Your task to perform on an android device: Go to eBay Image 0: 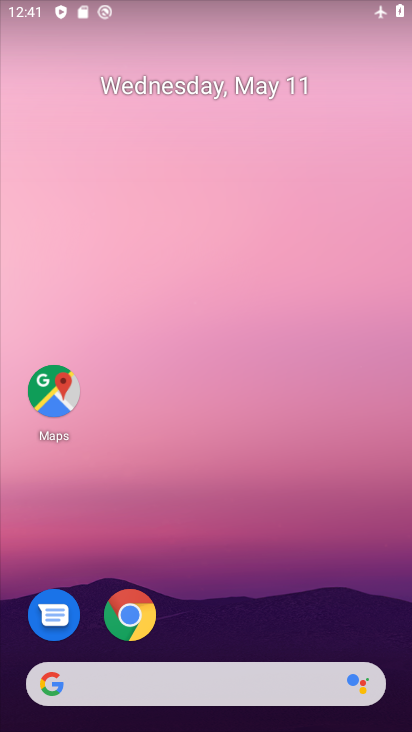
Step 0: drag from (367, 605) to (360, 152)
Your task to perform on an android device: Go to eBay Image 1: 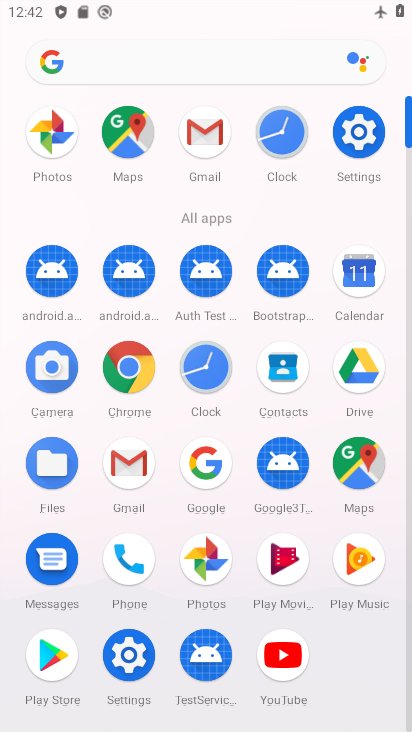
Step 1: click (141, 369)
Your task to perform on an android device: Go to eBay Image 2: 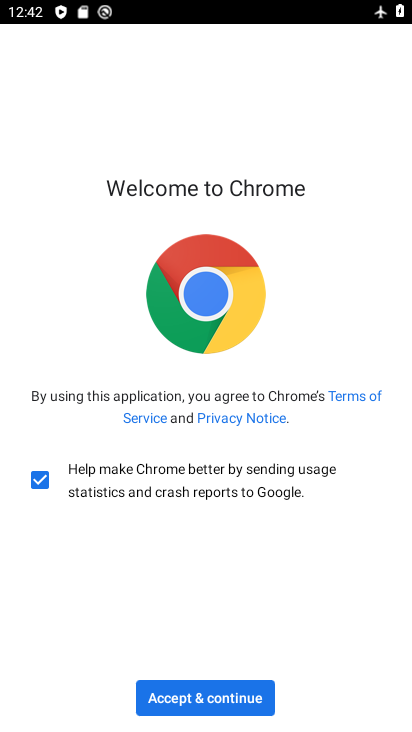
Step 2: click (240, 693)
Your task to perform on an android device: Go to eBay Image 3: 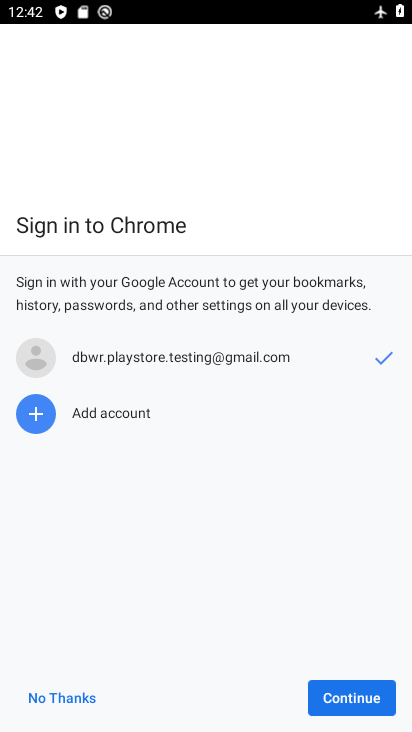
Step 3: click (350, 710)
Your task to perform on an android device: Go to eBay Image 4: 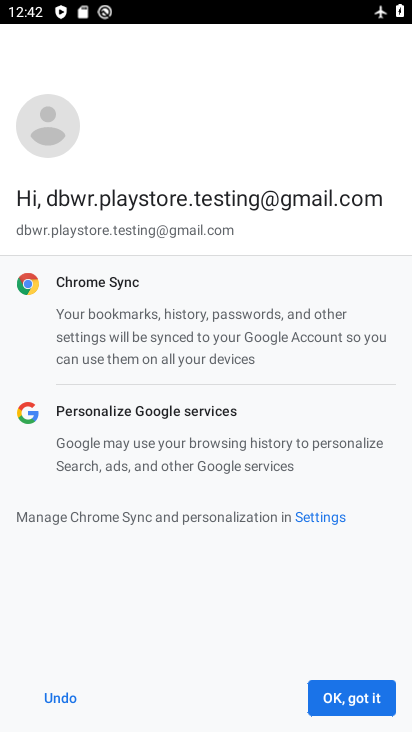
Step 4: click (350, 710)
Your task to perform on an android device: Go to eBay Image 5: 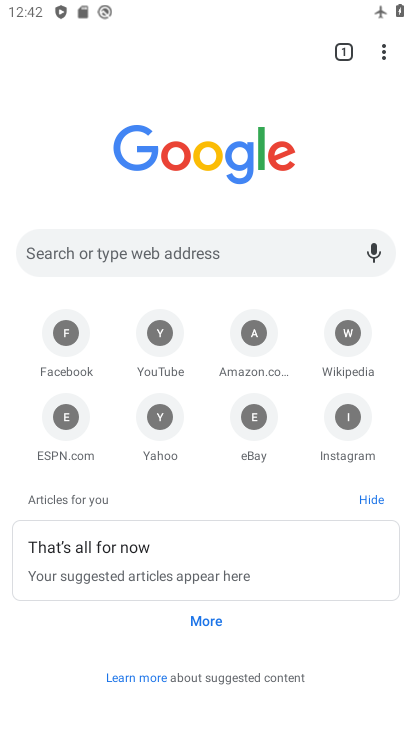
Step 5: click (225, 253)
Your task to perform on an android device: Go to eBay Image 6: 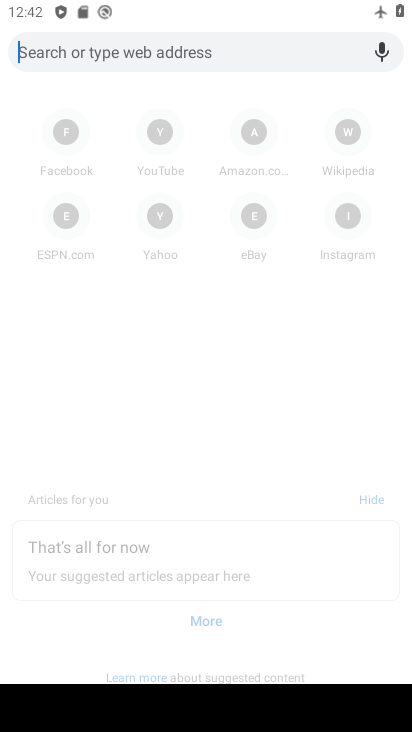
Step 6: type "ebay"
Your task to perform on an android device: Go to eBay Image 7: 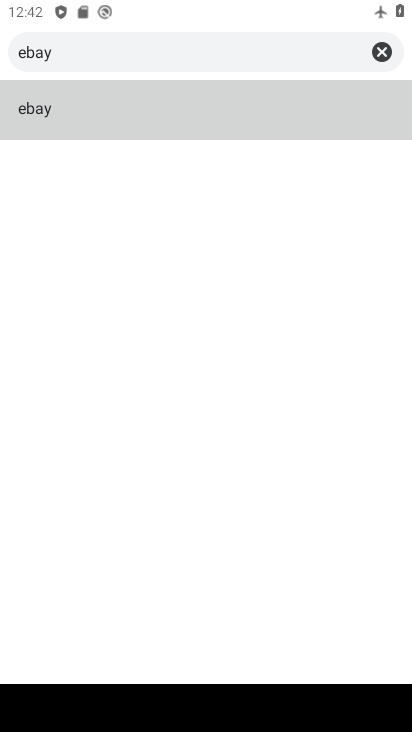
Step 7: click (64, 130)
Your task to perform on an android device: Go to eBay Image 8: 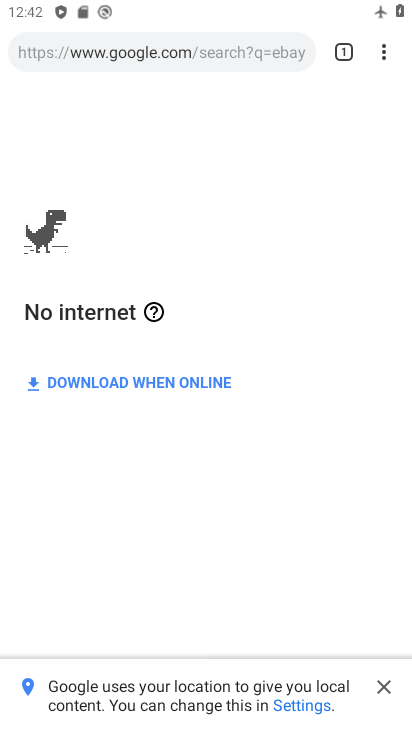
Step 8: task complete